Your task to perform on an android device: Go to Yahoo.com Image 0: 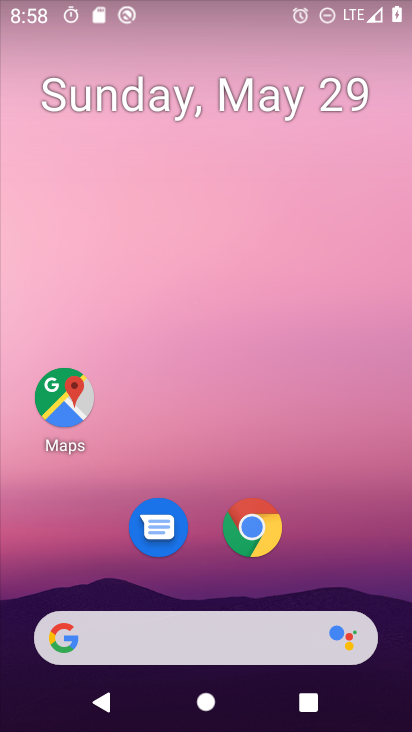
Step 0: drag from (399, 636) to (190, 65)
Your task to perform on an android device: Go to Yahoo.com Image 1: 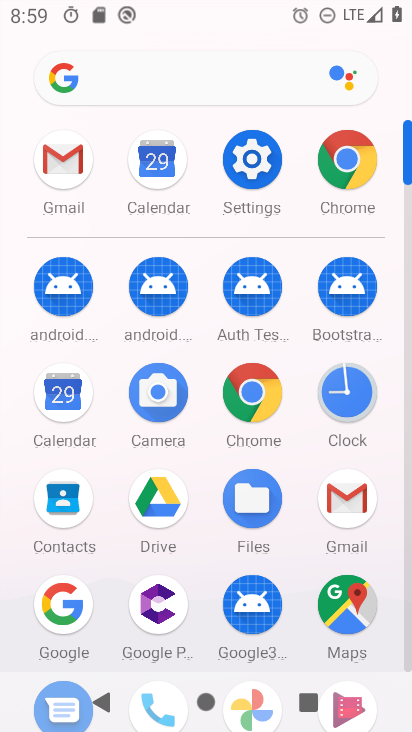
Step 1: click (45, 580)
Your task to perform on an android device: Go to Yahoo.com Image 2: 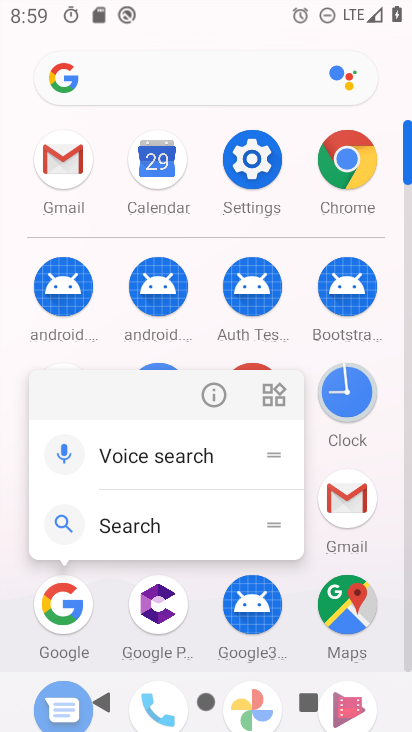
Step 2: click (77, 612)
Your task to perform on an android device: Go to Yahoo.com Image 3: 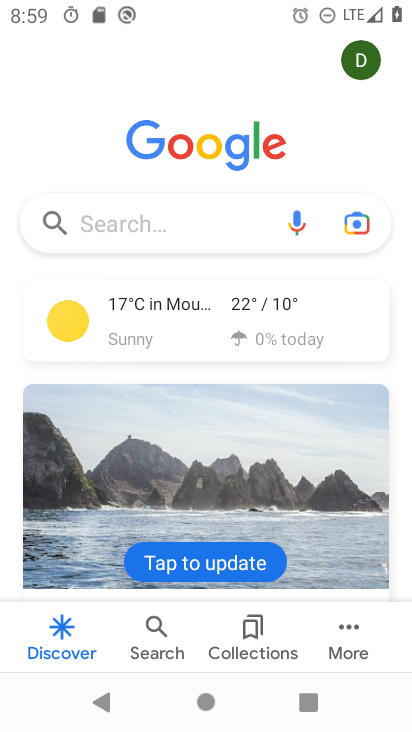
Step 3: click (154, 245)
Your task to perform on an android device: Go to Yahoo.com Image 4: 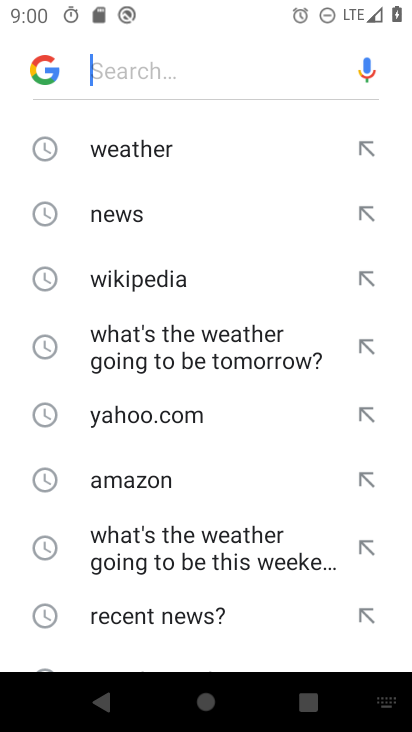
Step 4: click (202, 434)
Your task to perform on an android device: Go to Yahoo.com Image 5: 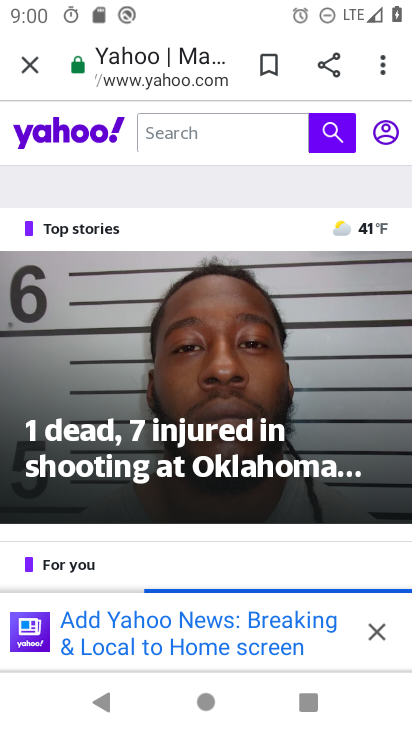
Step 5: task complete